Your task to perform on an android device: Open the calendar app, open the side menu, and click the "Day" option Image 0: 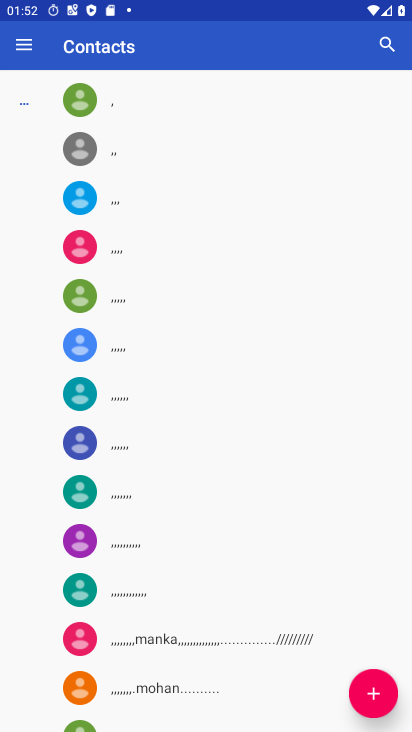
Step 0: press home button
Your task to perform on an android device: Open the calendar app, open the side menu, and click the "Day" option Image 1: 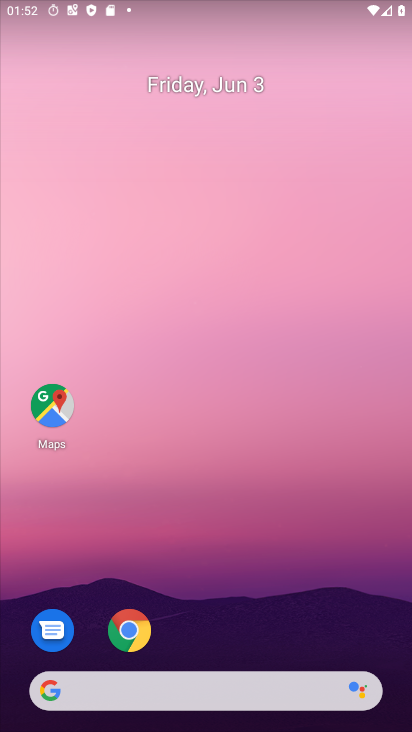
Step 1: drag from (248, 647) to (225, 215)
Your task to perform on an android device: Open the calendar app, open the side menu, and click the "Day" option Image 2: 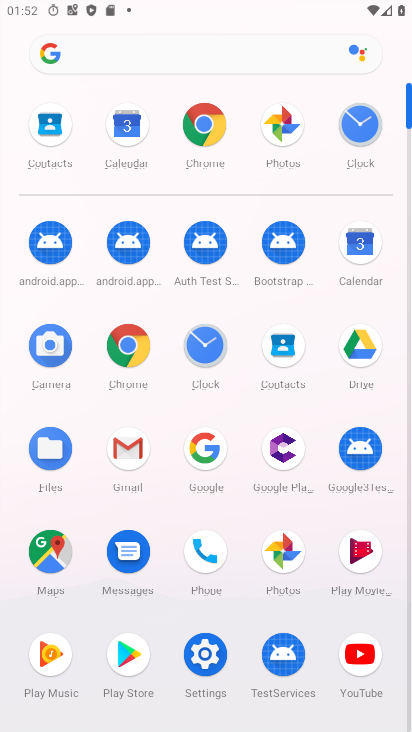
Step 2: click (361, 248)
Your task to perform on an android device: Open the calendar app, open the side menu, and click the "Day" option Image 3: 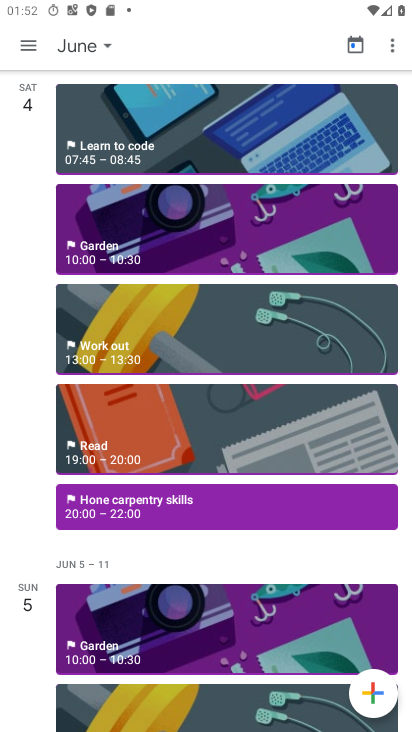
Step 3: click (23, 46)
Your task to perform on an android device: Open the calendar app, open the side menu, and click the "Day" option Image 4: 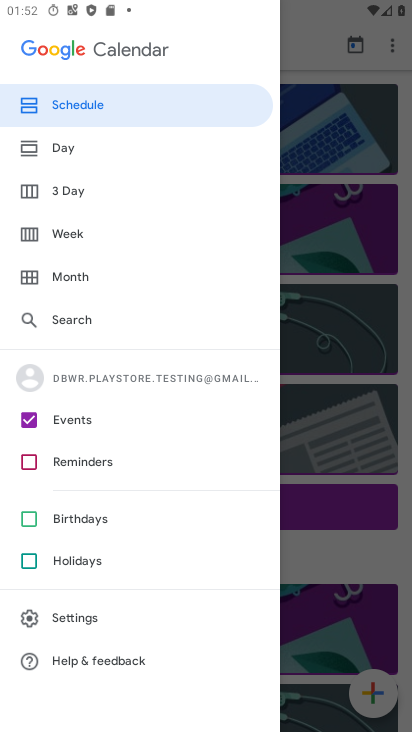
Step 4: click (74, 148)
Your task to perform on an android device: Open the calendar app, open the side menu, and click the "Day" option Image 5: 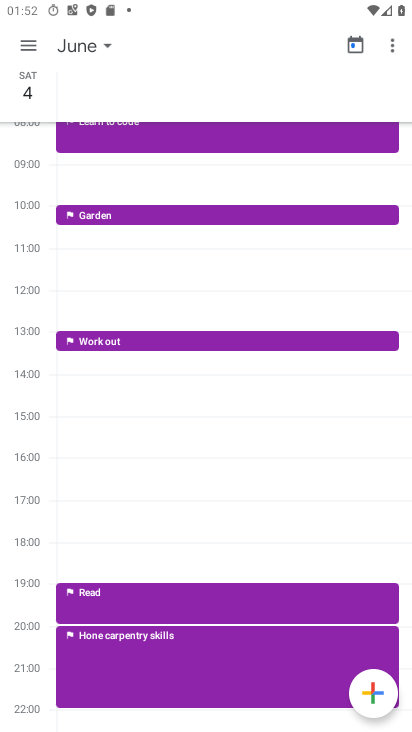
Step 5: task complete